Your task to perform on an android device: Go to Amazon Image 0: 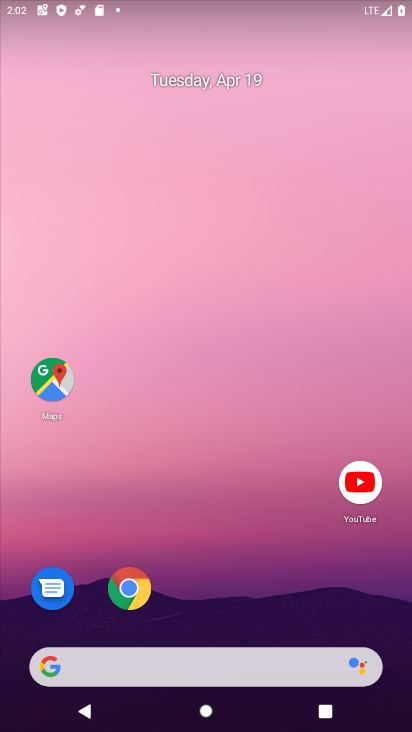
Step 0: click (133, 598)
Your task to perform on an android device: Go to Amazon Image 1: 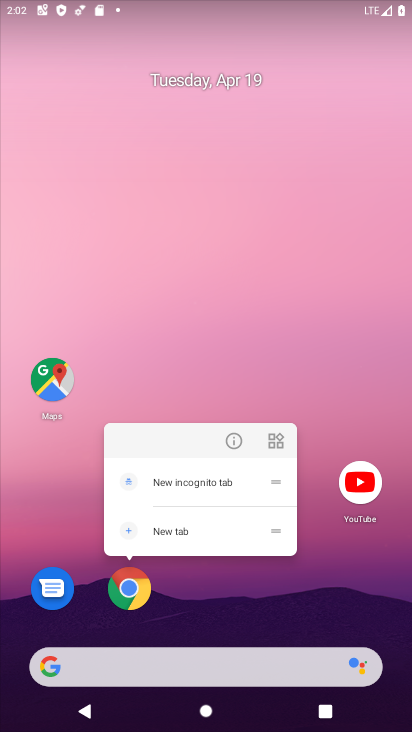
Step 1: click (140, 588)
Your task to perform on an android device: Go to Amazon Image 2: 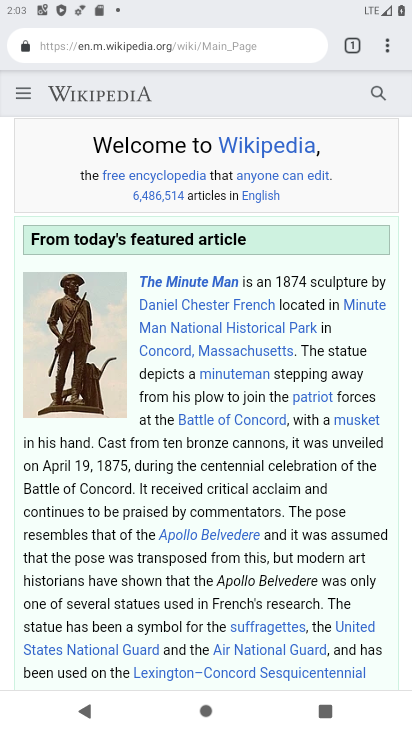
Step 2: click (350, 43)
Your task to perform on an android device: Go to Amazon Image 3: 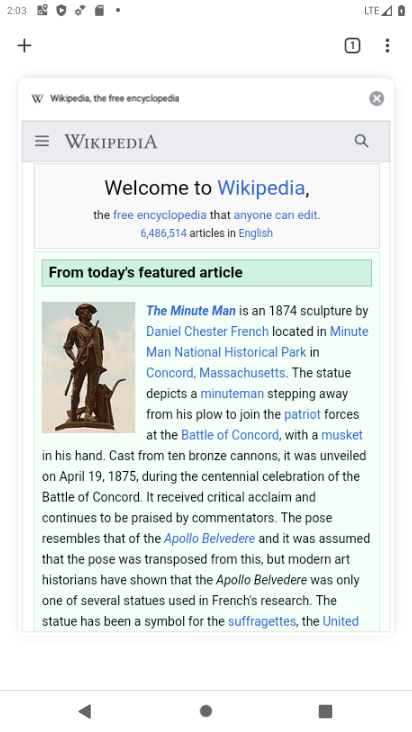
Step 3: click (12, 45)
Your task to perform on an android device: Go to Amazon Image 4: 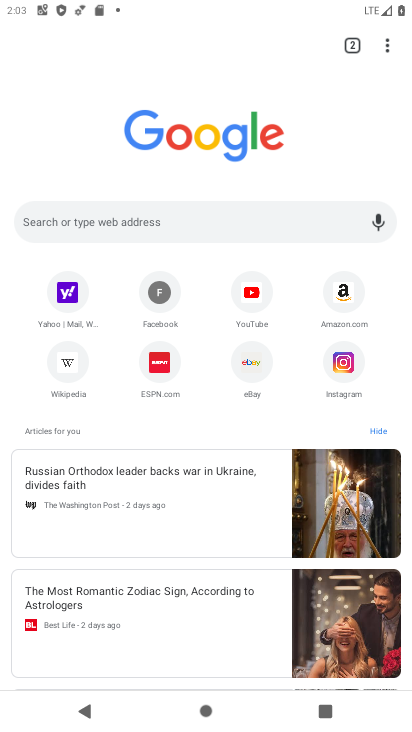
Step 4: click (334, 303)
Your task to perform on an android device: Go to Amazon Image 5: 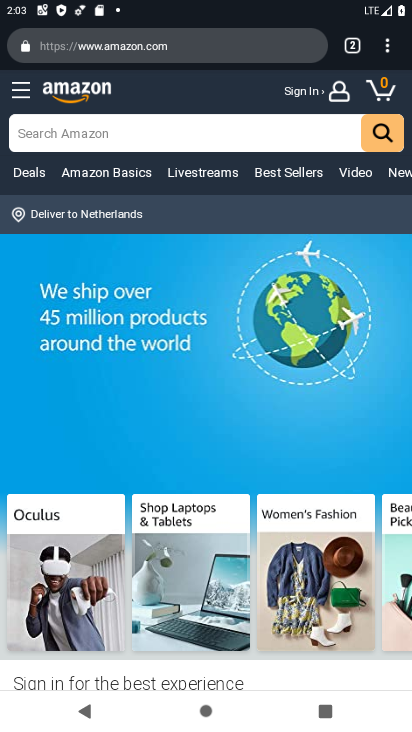
Step 5: task complete